Your task to perform on an android device: Open Chrome and go to the settings page Image 0: 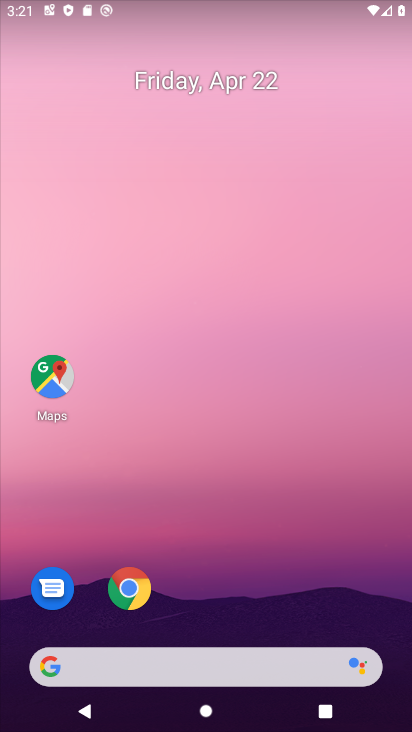
Step 0: click (121, 589)
Your task to perform on an android device: Open Chrome and go to the settings page Image 1: 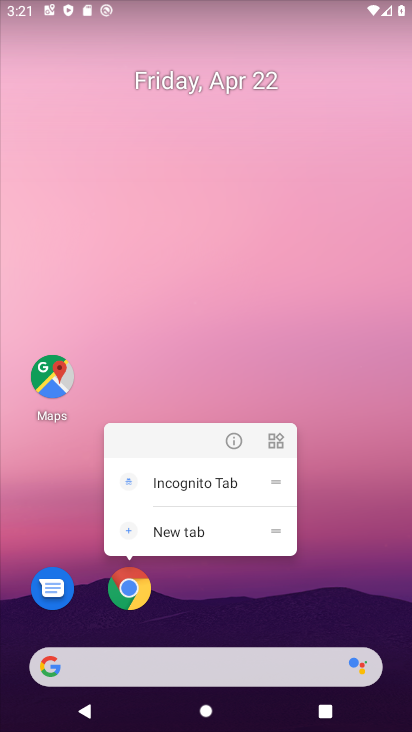
Step 1: click (120, 592)
Your task to perform on an android device: Open Chrome and go to the settings page Image 2: 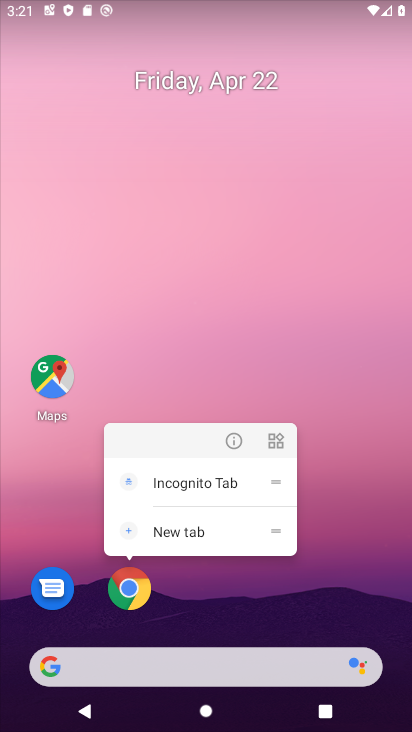
Step 2: click (135, 600)
Your task to perform on an android device: Open Chrome and go to the settings page Image 3: 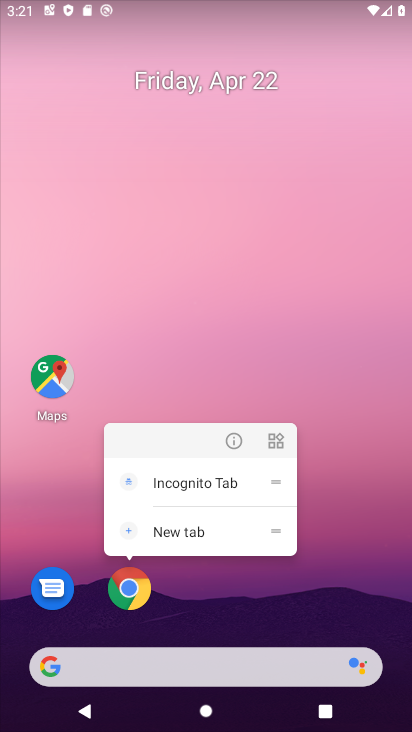
Step 3: click (121, 578)
Your task to perform on an android device: Open Chrome and go to the settings page Image 4: 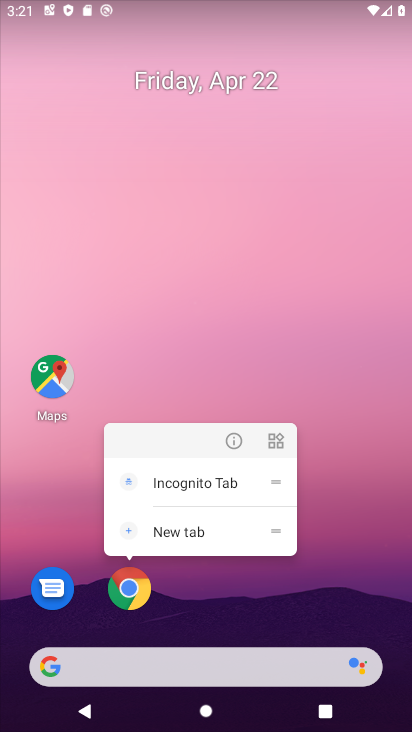
Step 4: click (127, 593)
Your task to perform on an android device: Open Chrome and go to the settings page Image 5: 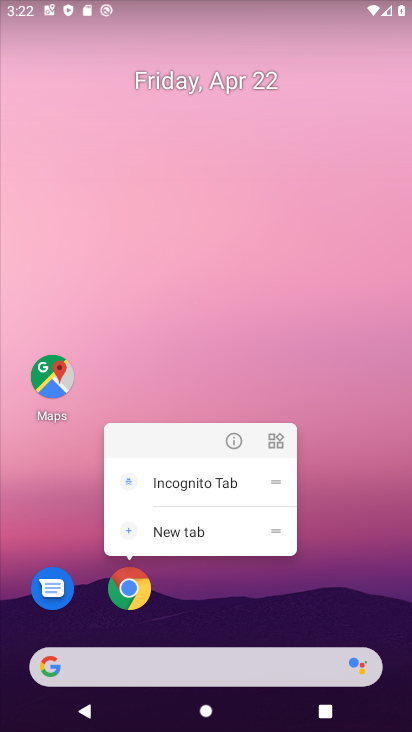
Step 5: click (133, 590)
Your task to perform on an android device: Open Chrome and go to the settings page Image 6: 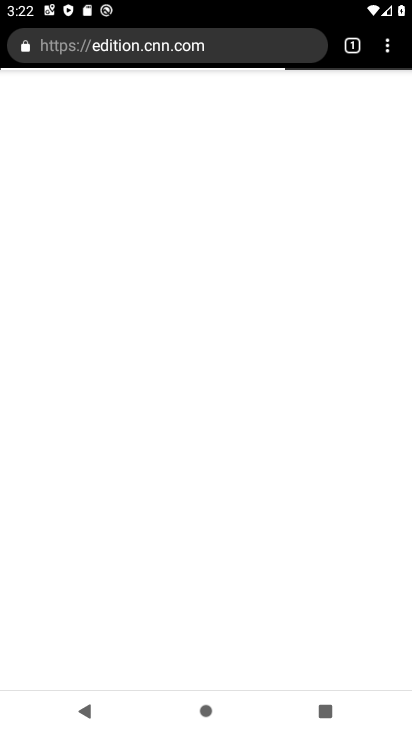
Step 6: task complete